Your task to perform on an android device: delete a single message in the gmail app Image 0: 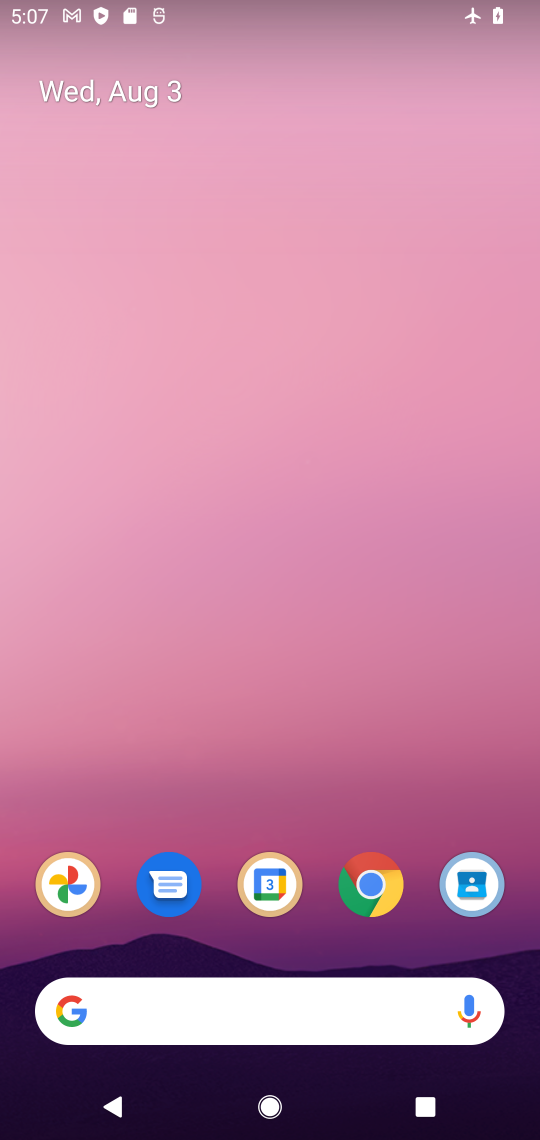
Step 0: drag from (300, 991) to (444, 95)
Your task to perform on an android device: delete a single message in the gmail app Image 1: 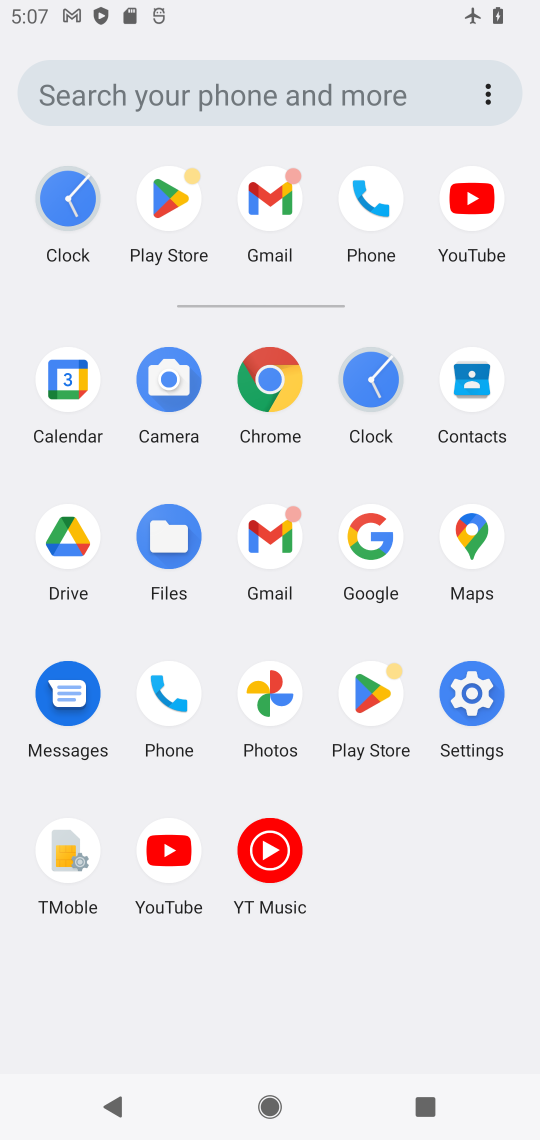
Step 1: click (271, 214)
Your task to perform on an android device: delete a single message in the gmail app Image 2: 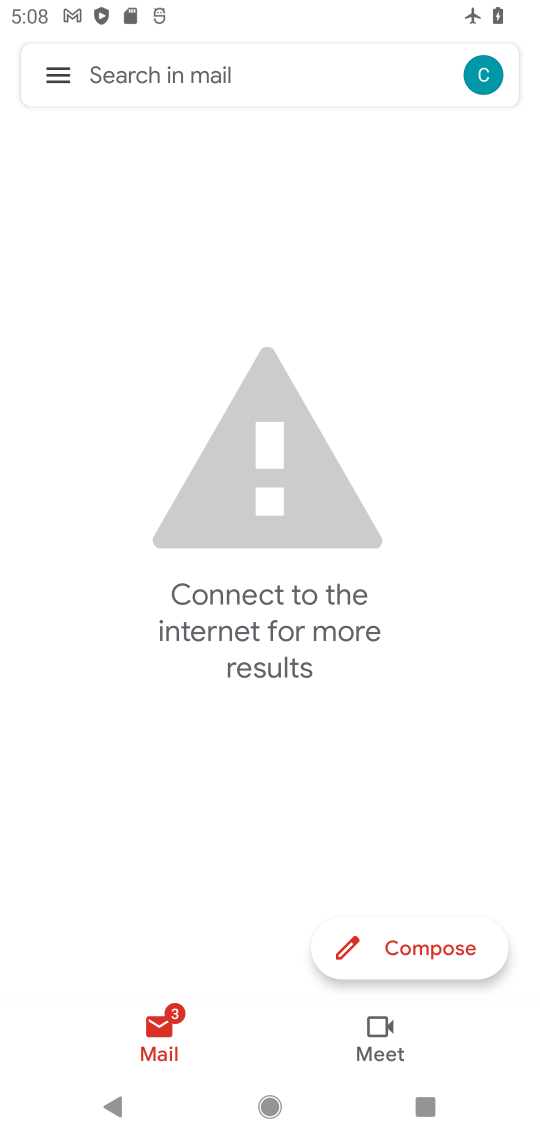
Step 2: task complete